Your task to perform on an android device: Open Wikipedia Image 0: 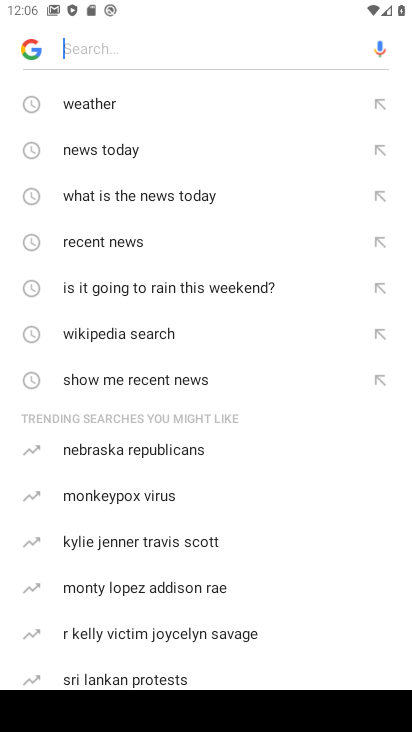
Step 0: press home button
Your task to perform on an android device: Open Wikipedia Image 1: 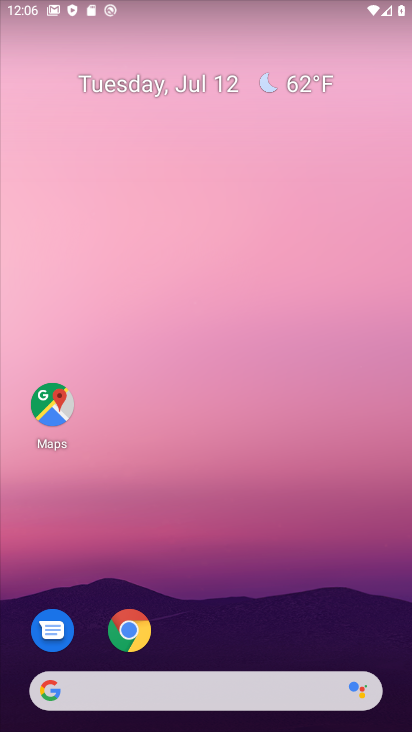
Step 1: click (128, 633)
Your task to perform on an android device: Open Wikipedia Image 2: 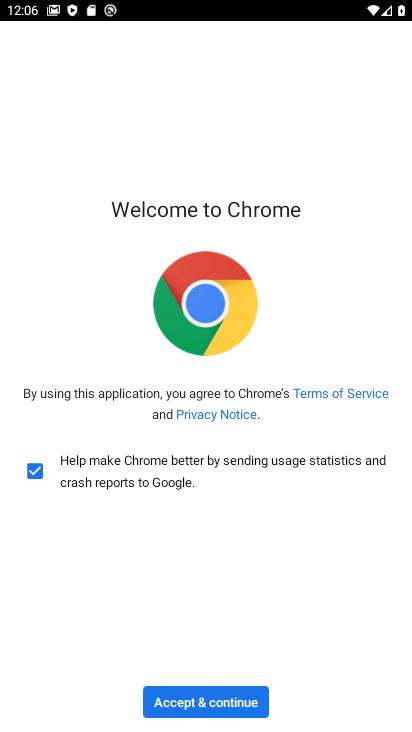
Step 2: click (195, 710)
Your task to perform on an android device: Open Wikipedia Image 3: 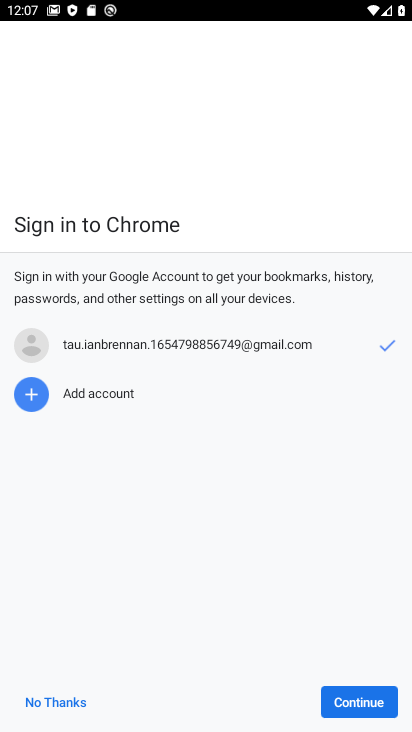
Step 3: click (333, 709)
Your task to perform on an android device: Open Wikipedia Image 4: 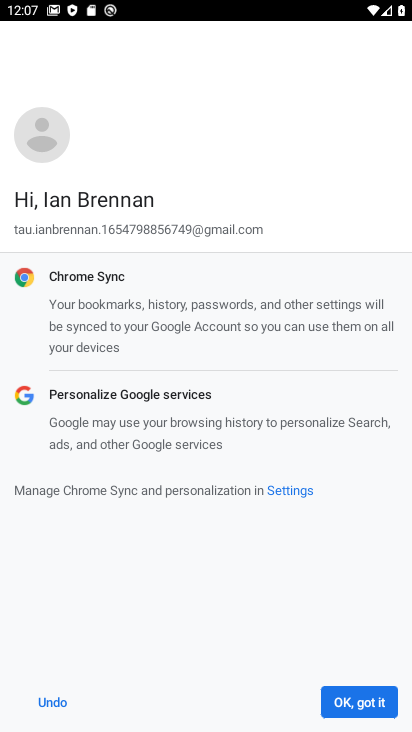
Step 4: click (336, 705)
Your task to perform on an android device: Open Wikipedia Image 5: 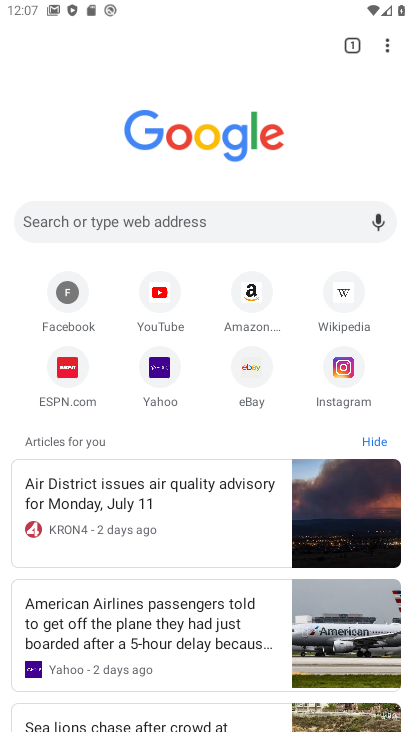
Step 5: click (337, 297)
Your task to perform on an android device: Open Wikipedia Image 6: 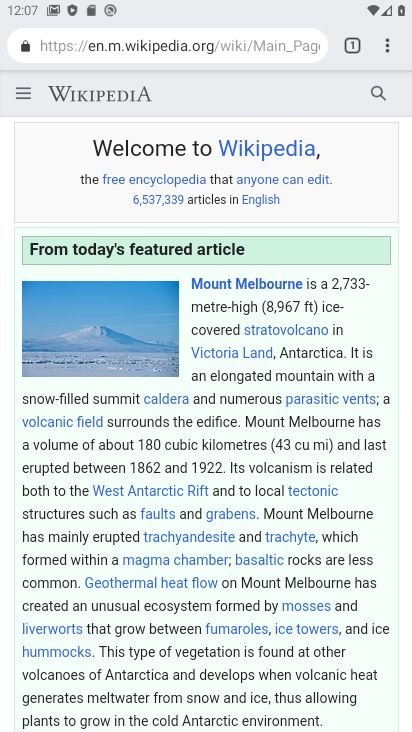
Step 6: task complete